Your task to perform on an android device: find which apps use the phone's location Image 0: 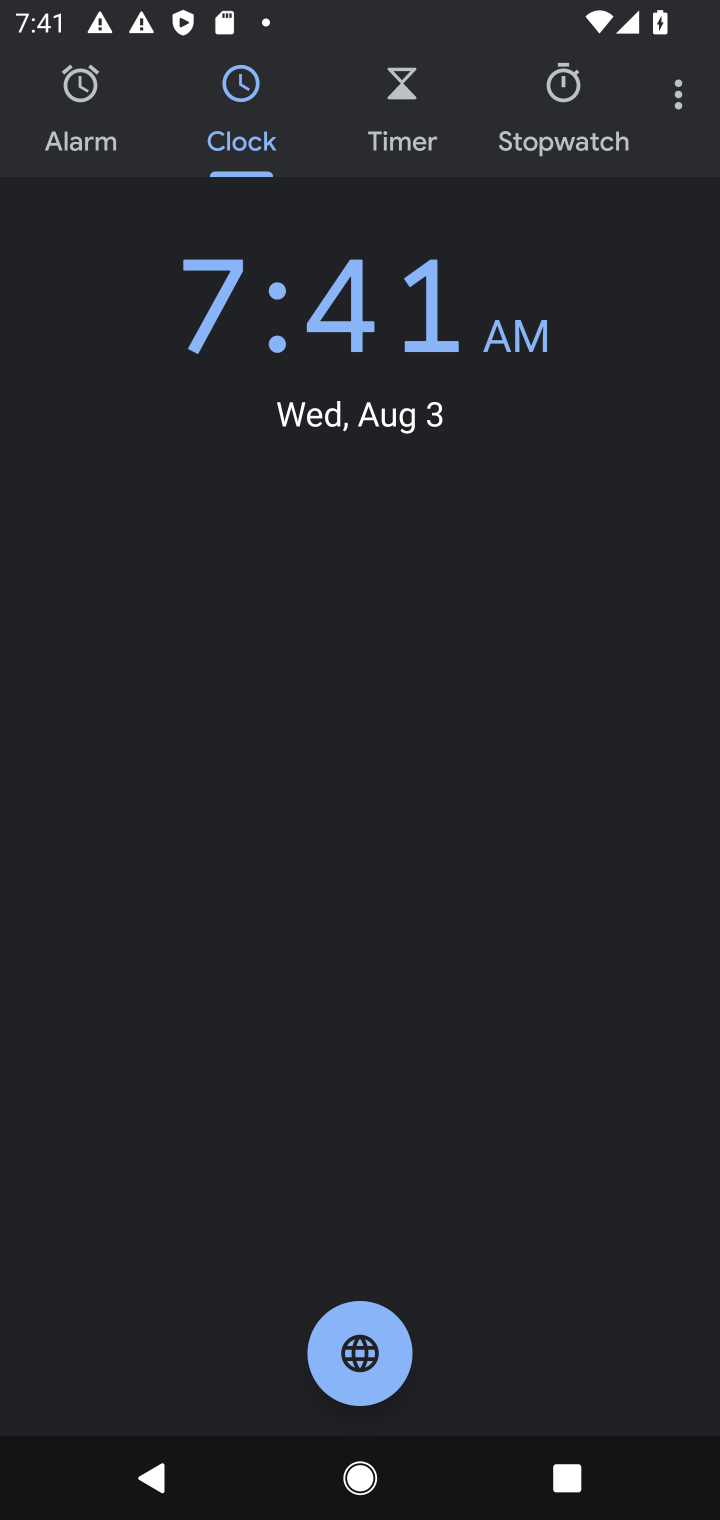
Step 0: press home button
Your task to perform on an android device: find which apps use the phone's location Image 1: 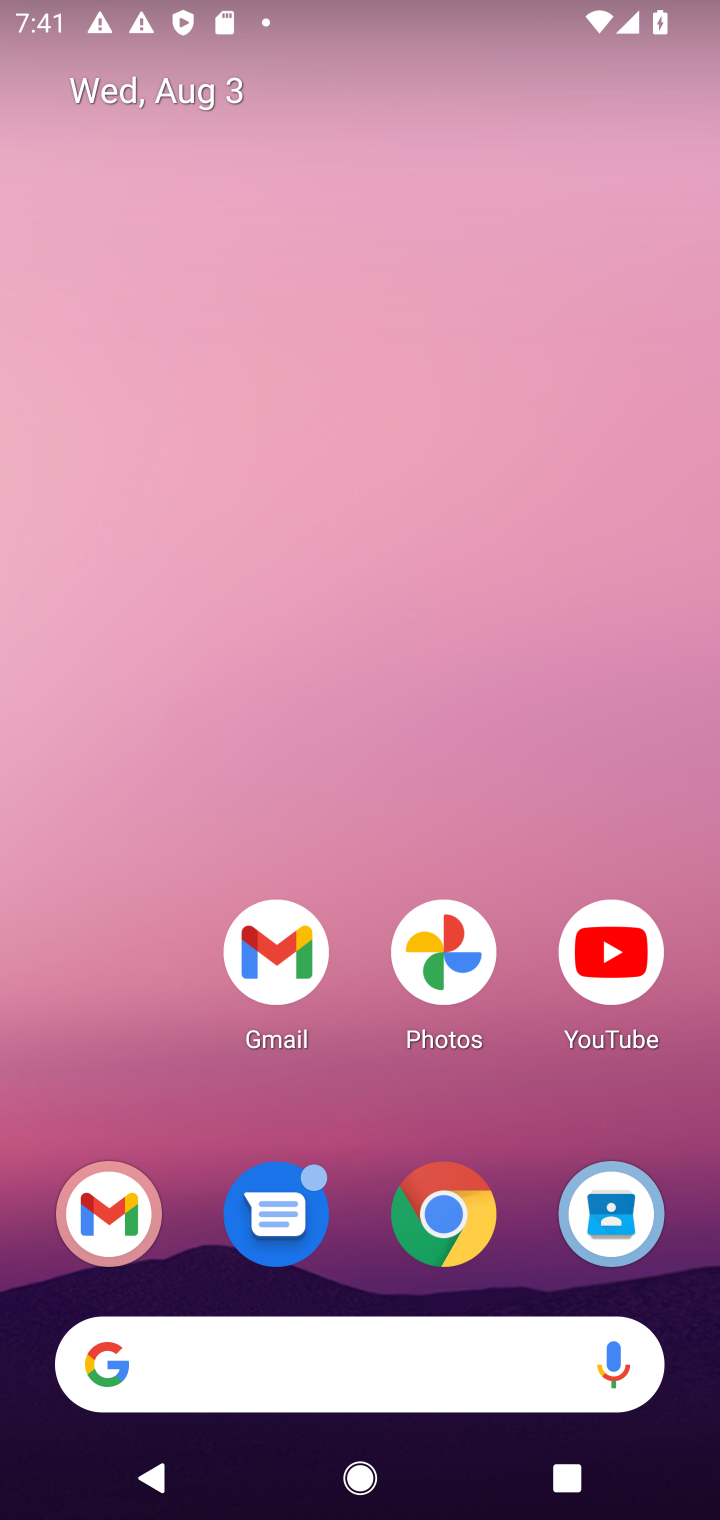
Step 1: drag from (285, 1313) to (287, 288)
Your task to perform on an android device: find which apps use the phone's location Image 2: 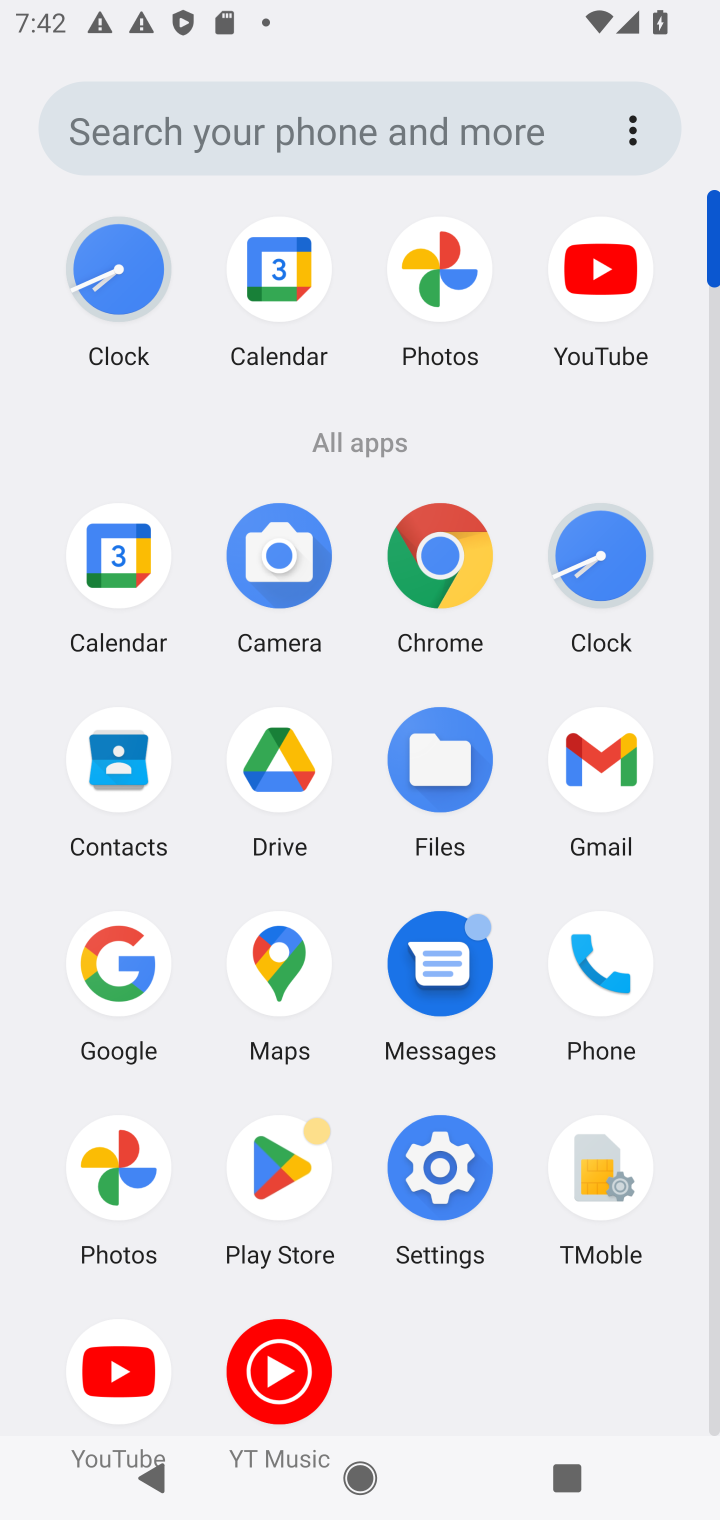
Step 2: click (441, 1174)
Your task to perform on an android device: find which apps use the phone's location Image 3: 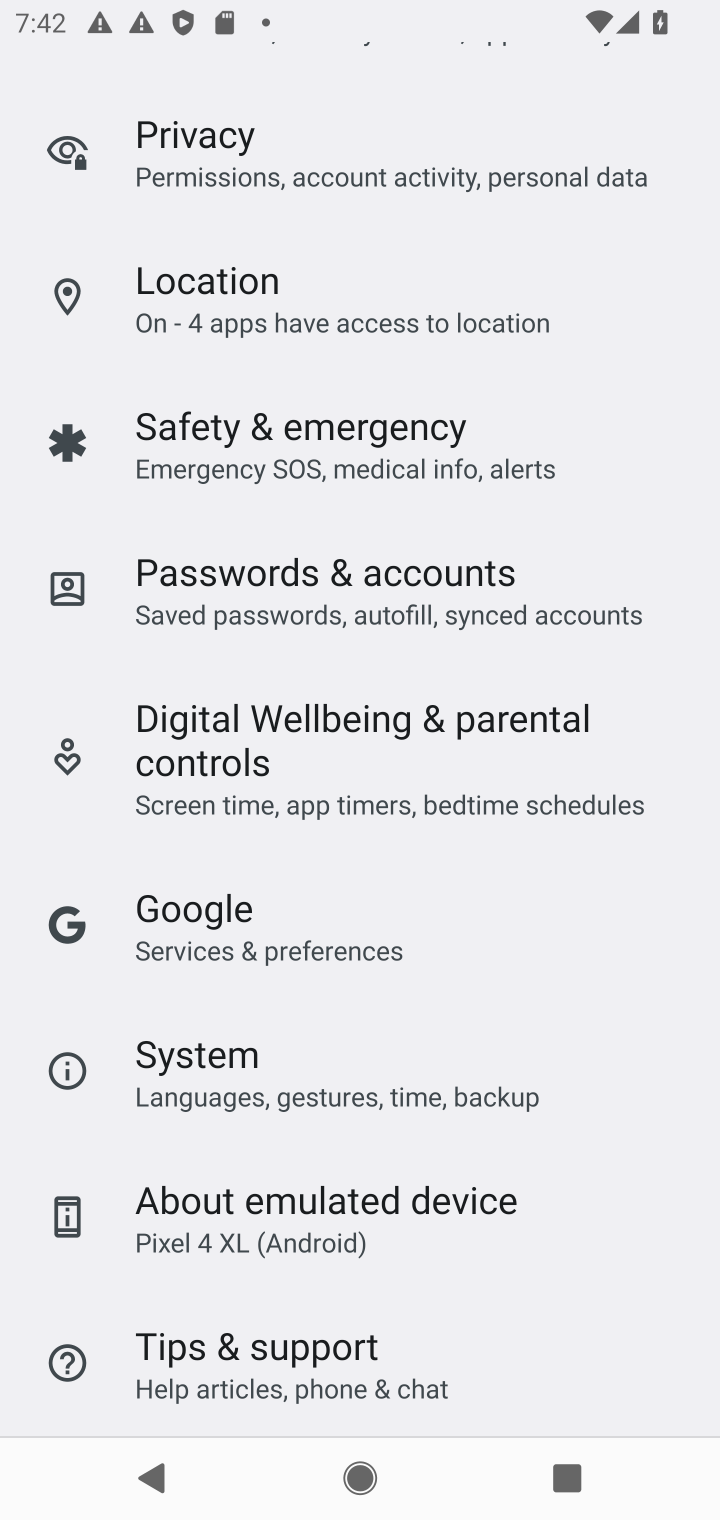
Step 3: click (218, 281)
Your task to perform on an android device: find which apps use the phone's location Image 4: 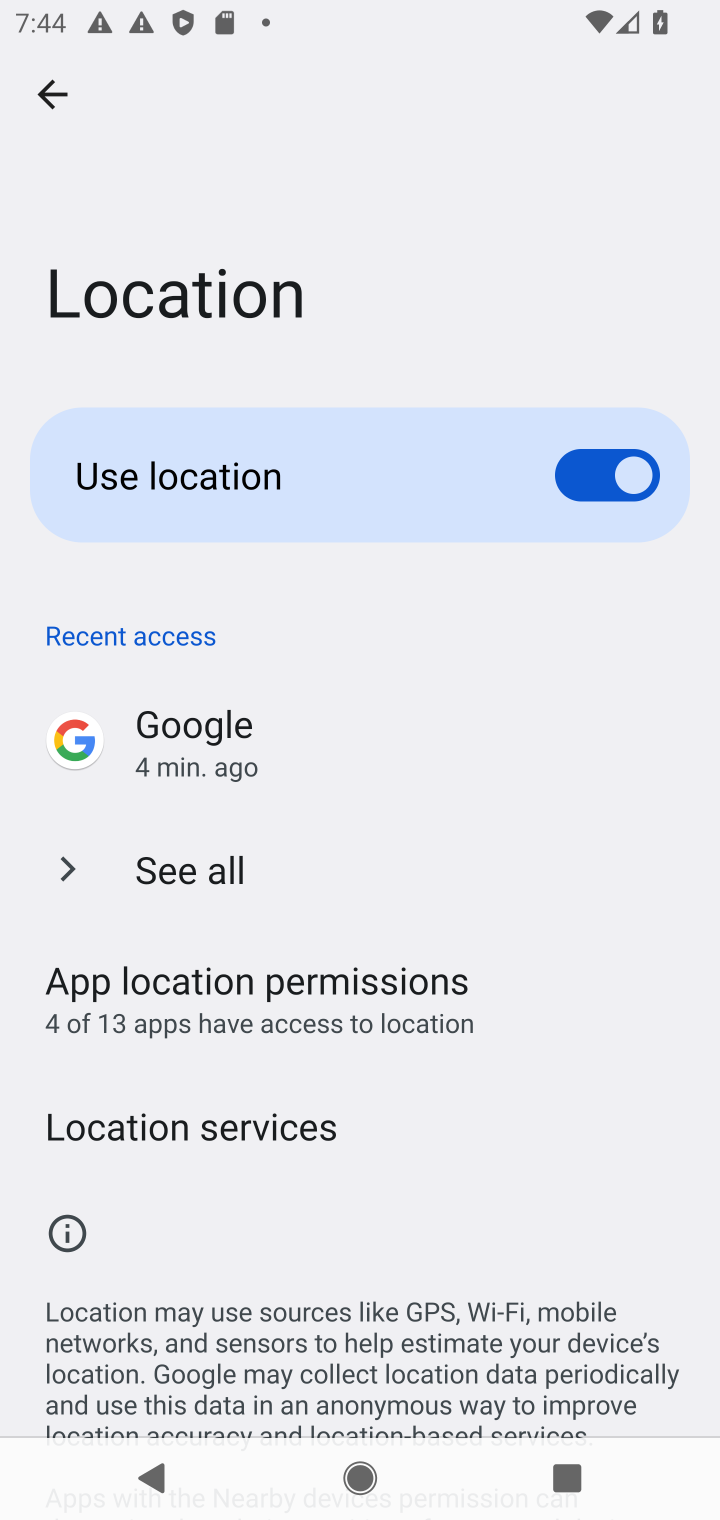
Step 4: click (173, 868)
Your task to perform on an android device: find which apps use the phone's location Image 5: 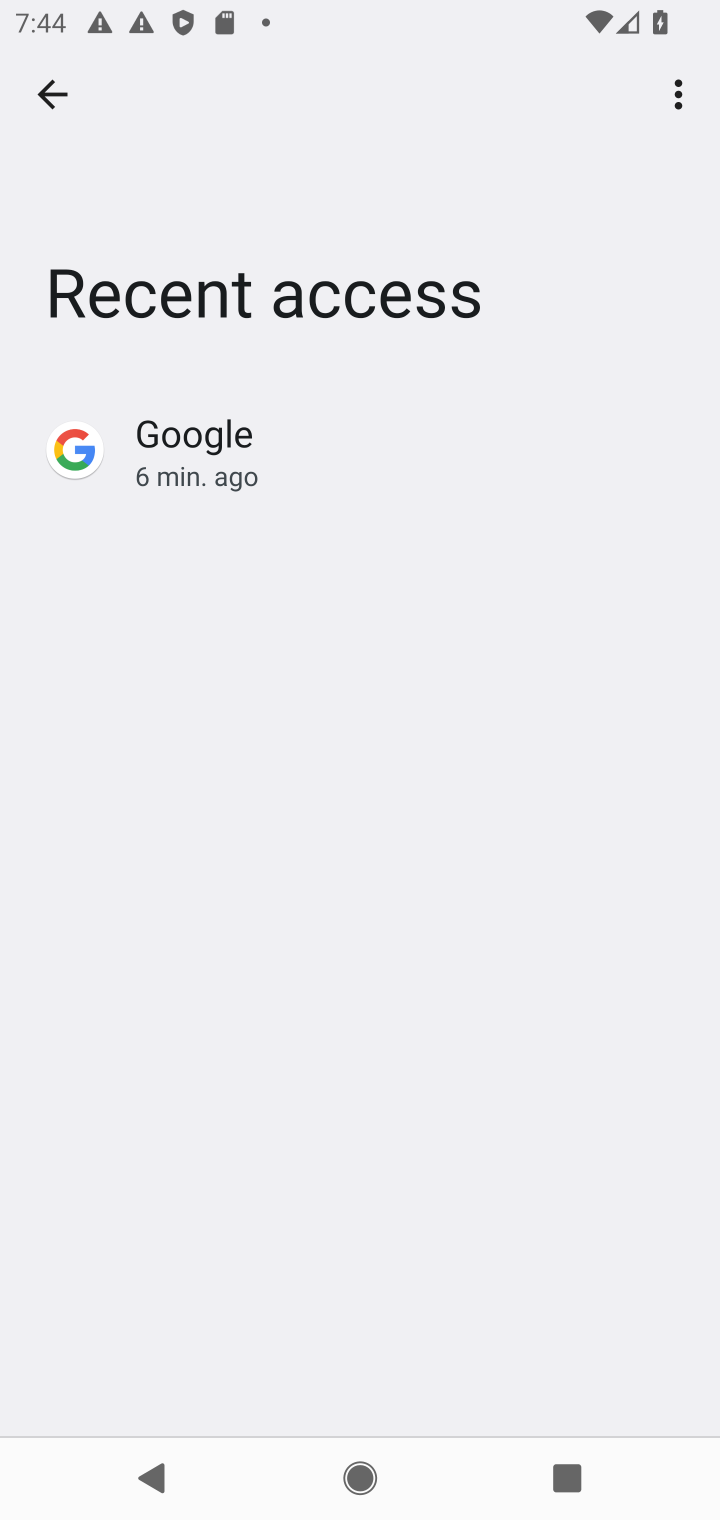
Step 5: task complete